Your task to perform on an android device: When is my next meeting? Image 0: 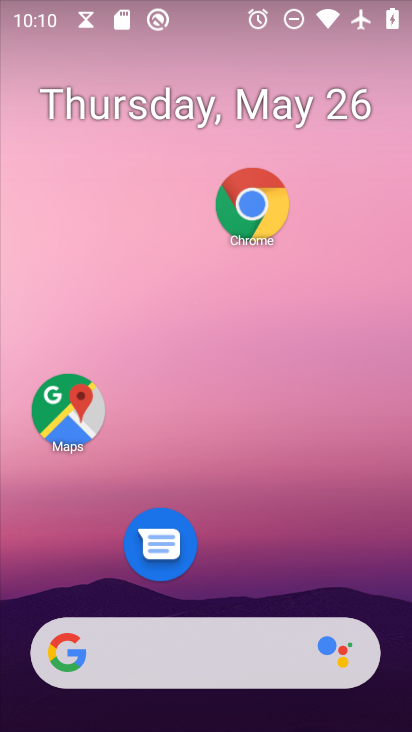
Step 0: press home button
Your task to perform on an android device: When is my next meeting? Image 1: 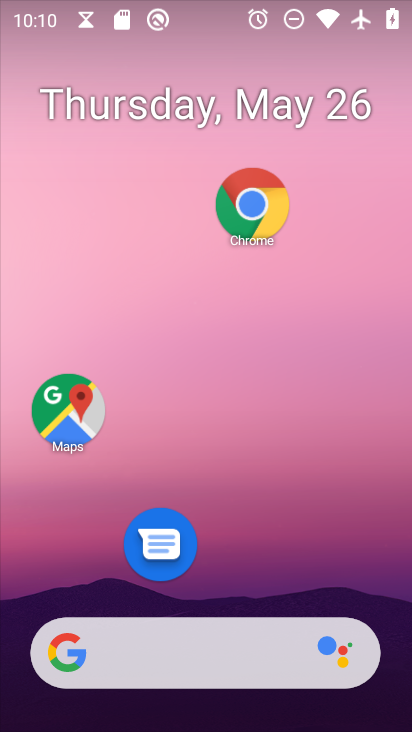
Step 1: drag from (208, 594) to (262, 91)
Your task to perform on an android device: When is my next meeting? Image 2: 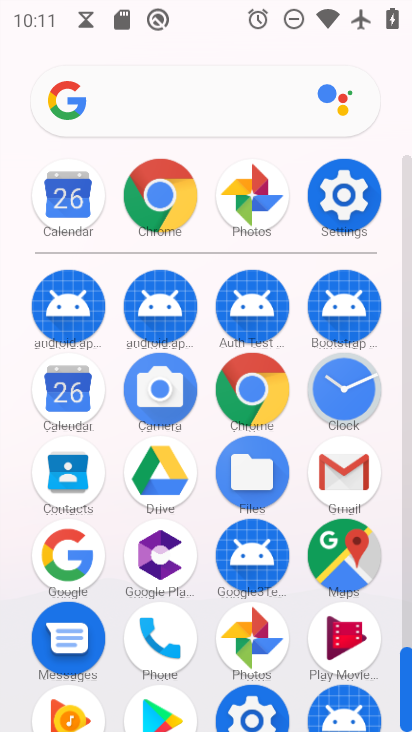
Step 2: click (69, 386)
Your task to perform on an android device: When is my next meeting? Image 3: 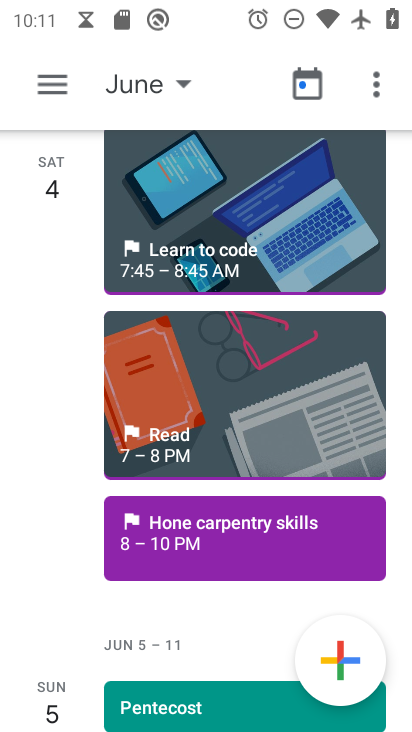
Step 3: task complete